Your task to perform on an android device: check out phone information Image 0: 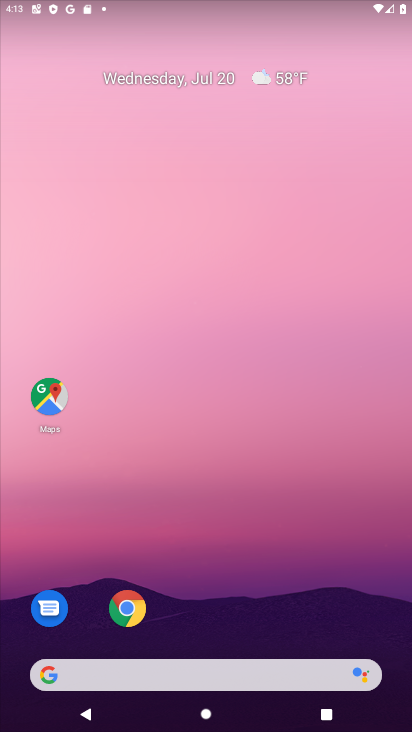
Step 0: click (129, 616)
Your task to perform on an android device: check out phone information Image 1: 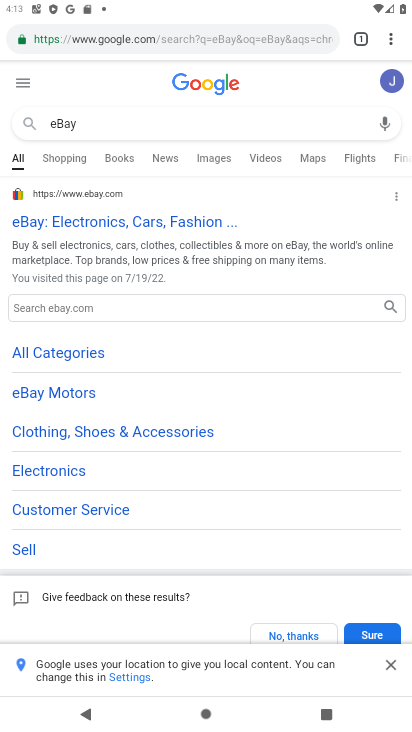
Step 1: press home button
Your task to perform on an android device: check out phone information Image 2: 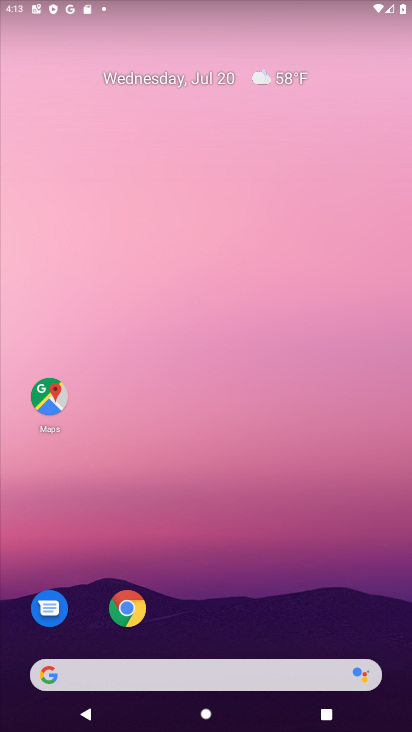
Step 2: drag from (195, 659) to (191, 47)
Your task to perform on an android device: check out phone information Image 3: 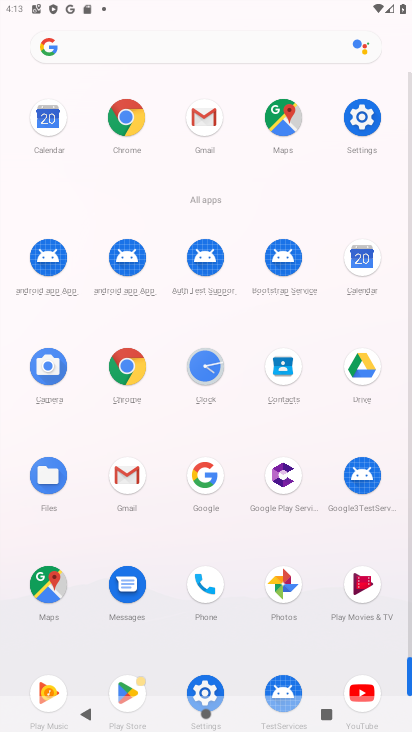
Step 3: click (209, 682)
Your task to perform on an android device: check out phone information Image 4: 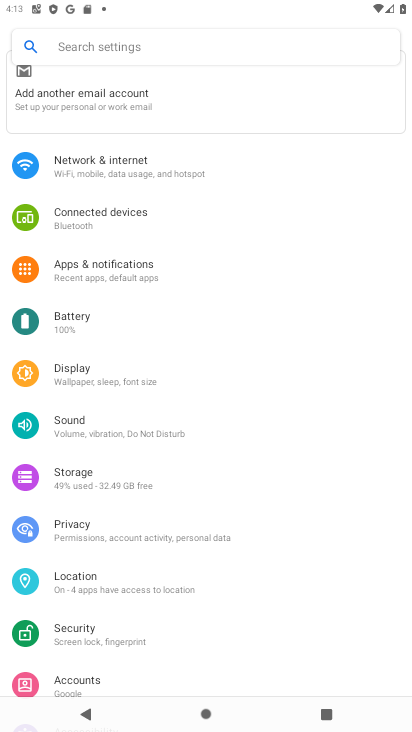
Step 4: drag from (131, 648) to (146, 333)
Your task to perform on an android device: check out phone information Image 5: 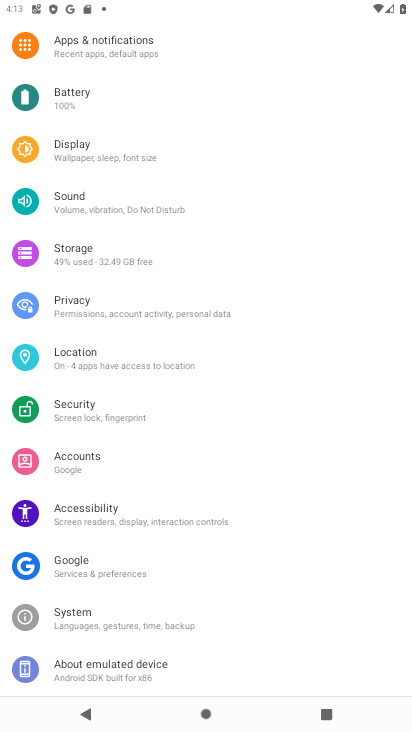
Step 5: click (105, 670)
Your task to perform on an android device: check out phone information Image 6: 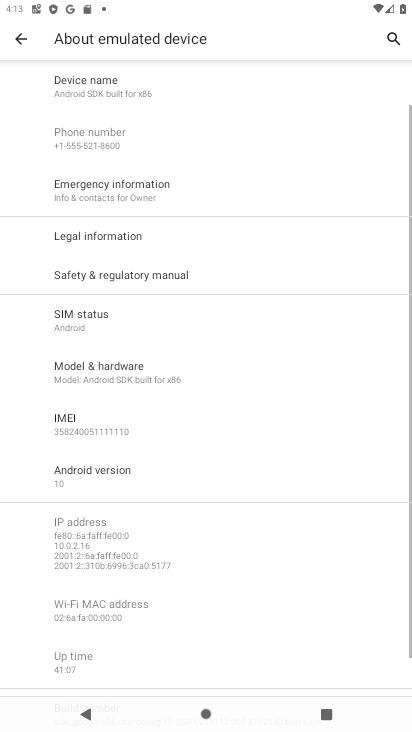
Step 6: task complete